Your task to perform on an android device: When is my next appointment? Image 0: 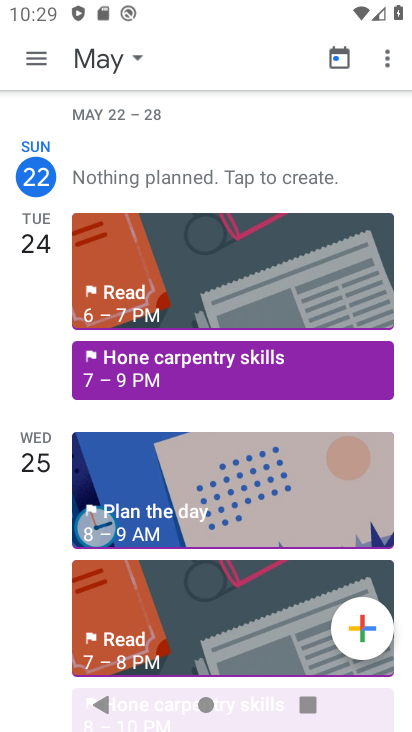
Step 0: click (116, 61)
Your task to perform on an android device: When is my next appointment? Image 1: 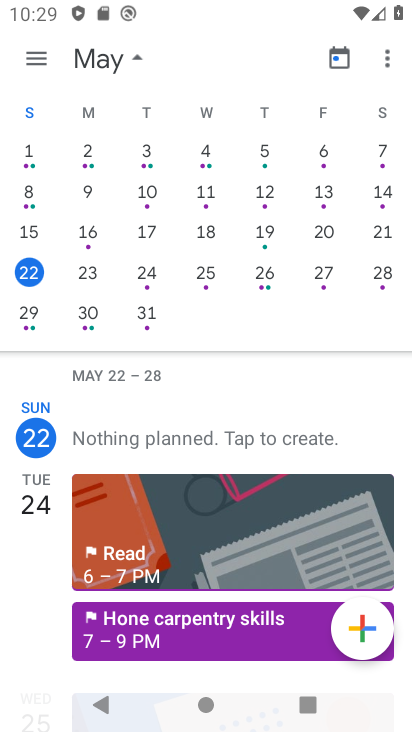
Step 1: click (90, 271)
Your task to perform on an android device: When is my next appointment? Image 2: 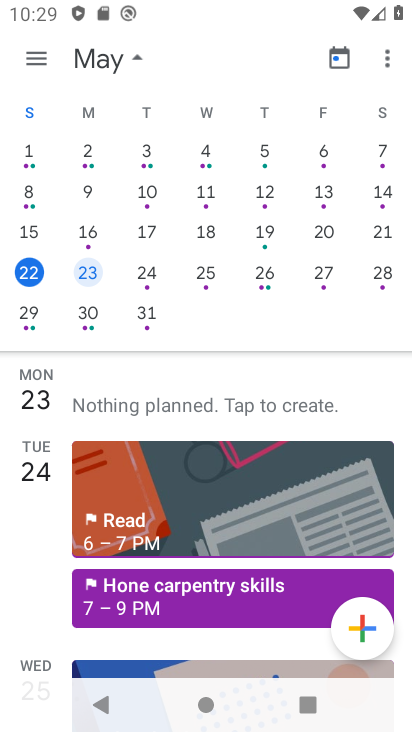
Step 2: click (89, 270)
Your task to perform on an android device: When is my next appointment? Image 3: 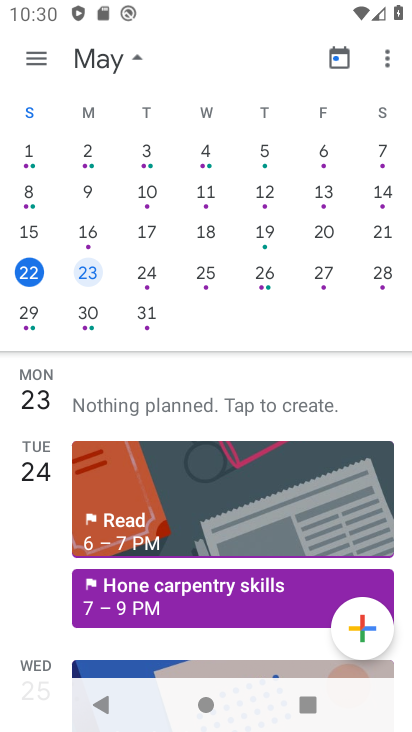
Step 3: task complete